Your task to perform on an android device: turn pop-ups off in chrome Image 0: 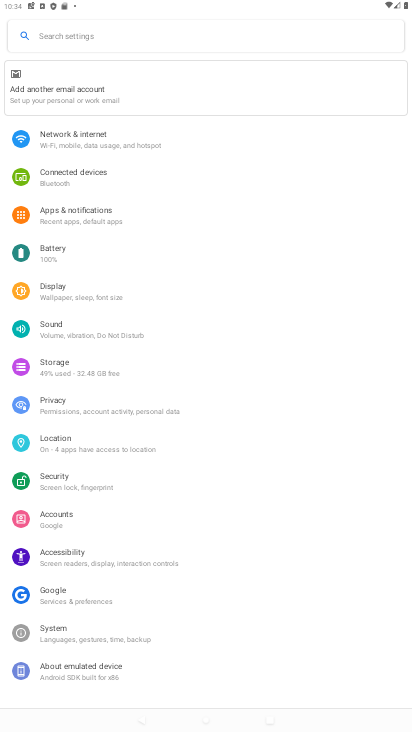
Step 0: press home button
Your task to perform on an android device: turn pop-ups off in chrome Image 1: 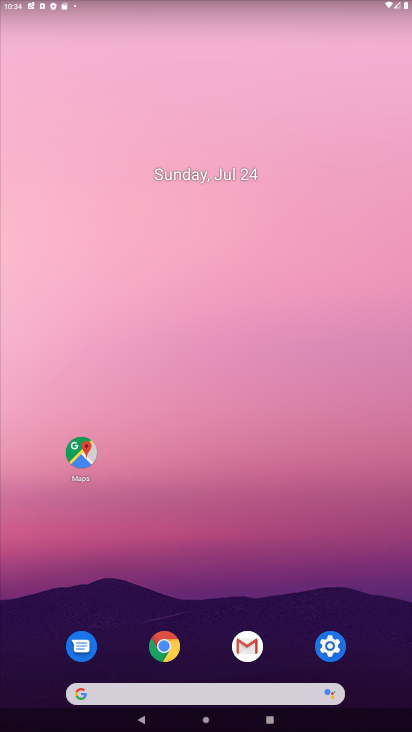
Step 1: click (166, 643)
Your task to perform on an android device: turn pop-ups off in chrome Image 2: 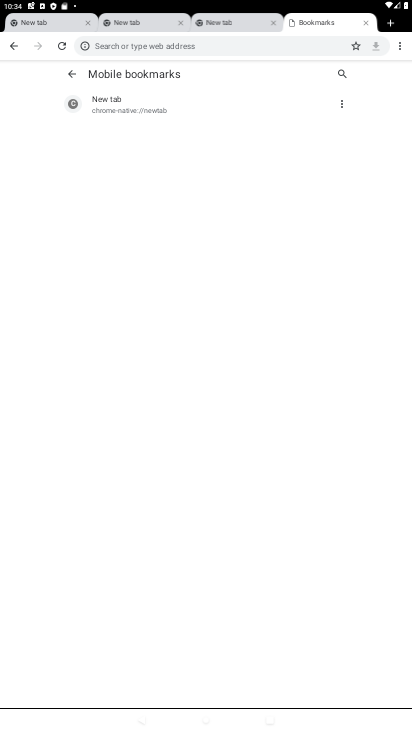
Step 2: click (408, 47)
Your task to perform on an android device: turn pop-ups off in chrome Image 3: 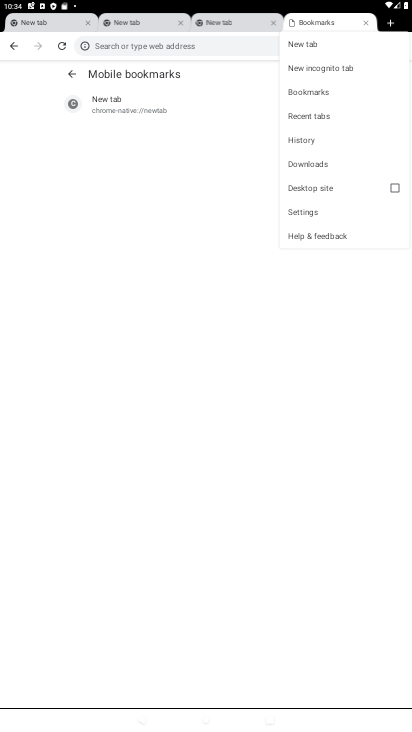
Step 3: click (300, 208)
Your task to perform on an android device: turn pop-ups off in chrome Image 4: 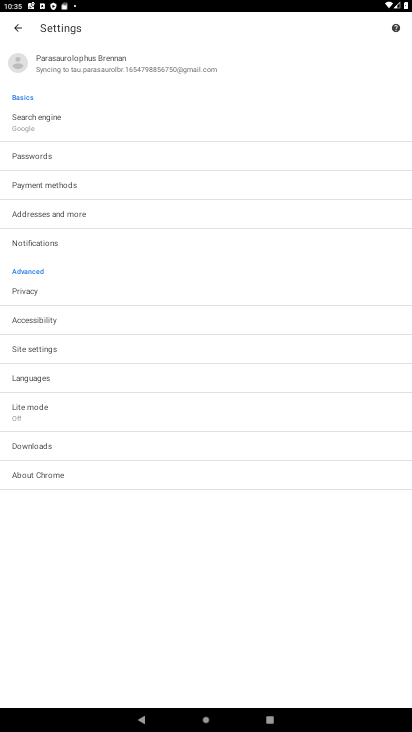
Step 4: click (48, 344)
Your task to perform on an android device: turn pop-ups off in chrome Image 5: 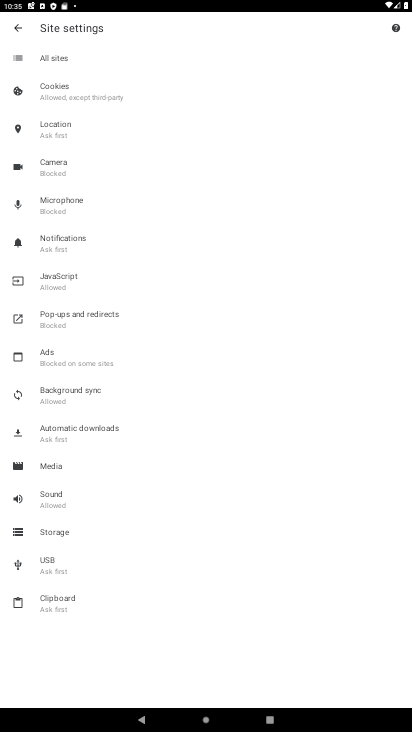
Step 5: click (70, 321)
Your task to perform on an android device: turn pop-ups off in chrome Image 6: 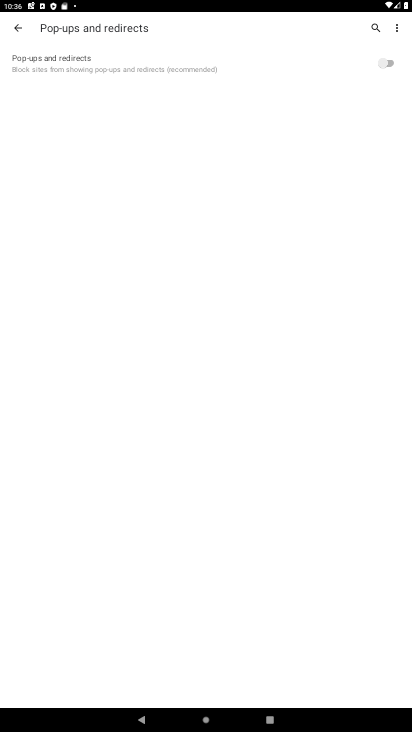
Step 6: task complete